Your task to perform on an android device: Go to Amazon Image 0: 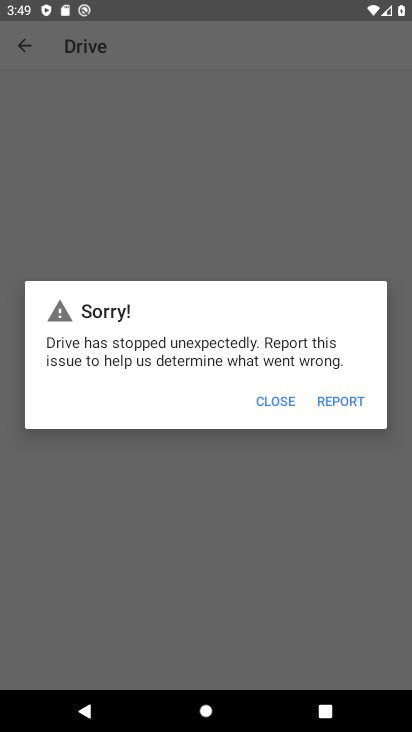
Step 0: press home button
Your task to perform on an android device: Go to Amazon Image 1: 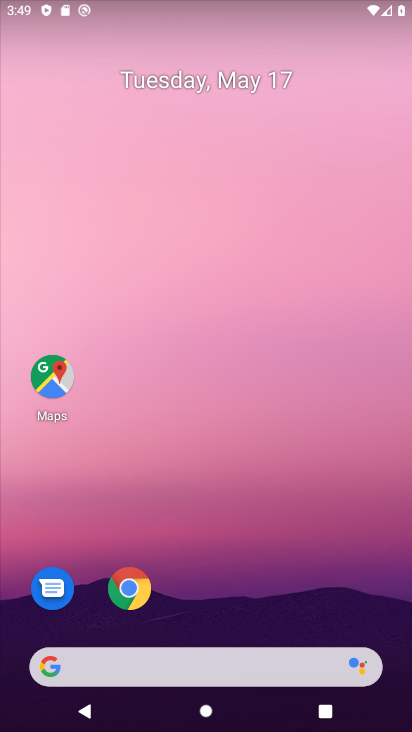
Step 1: click (127, 587)
Your task to perform on an android device: Go to Amazon Image 2: 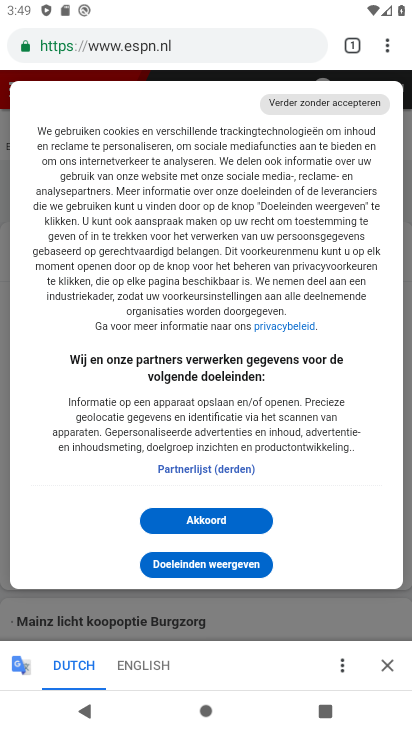
Step 2: click (290, 54)
Your task to perform on an android device: Go to Amazon Image 3: 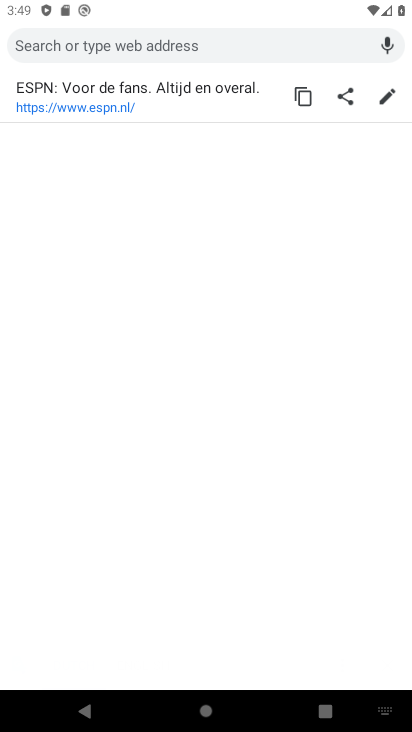
Step 3: type "Amazon"
Your task to perform on an android device: Go to Amazon Image 4: 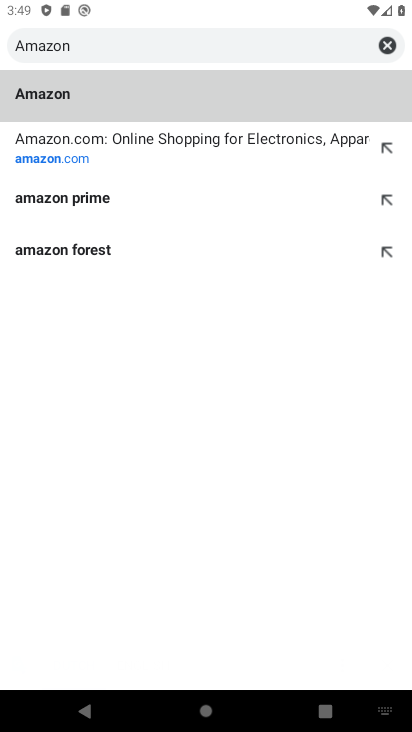
Step 4: click (40, 95)
Your task to perform on an android device: Go to Amazon Image 5: 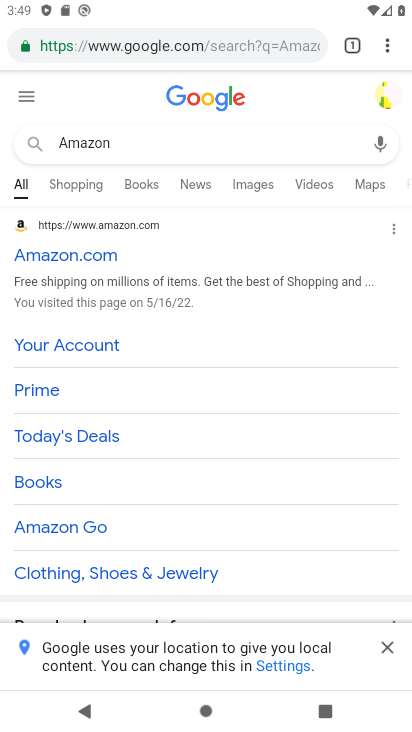
Step 5: click (60, 262)
Your task to perform on an android device: Go to Amazon Image 6: 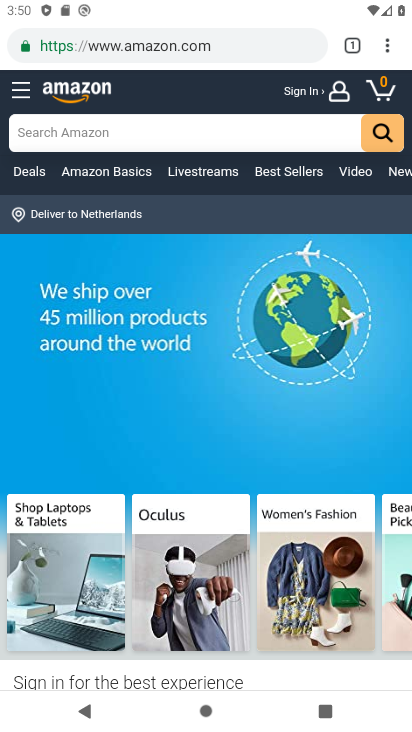
Step 6: task complete